Your task to perform on an android device: turn off location Image 0: 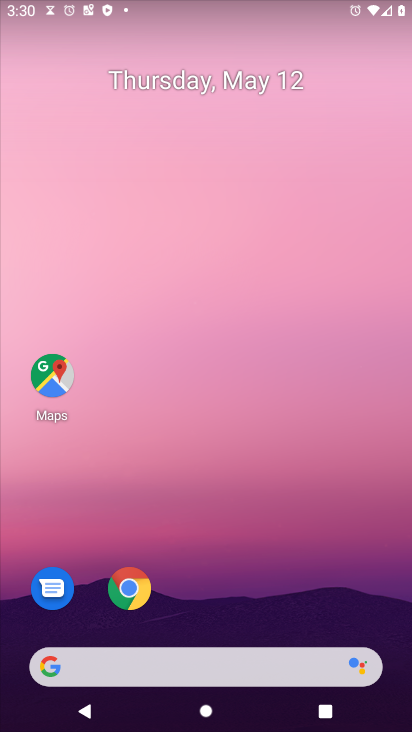
Step 0: drag from (205, 546) to (165, 27)
Your task to perform on an android device: turn off location Image 1: 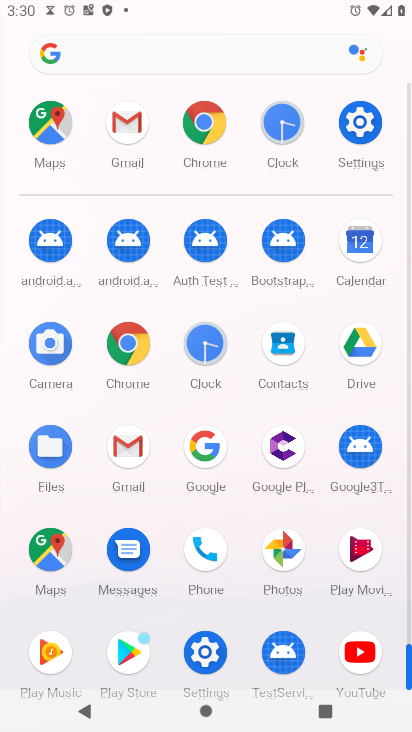
Step 1: drag from (15, 492) to (21, 269)
Your task to perform on an android device: turn off location Image 2: 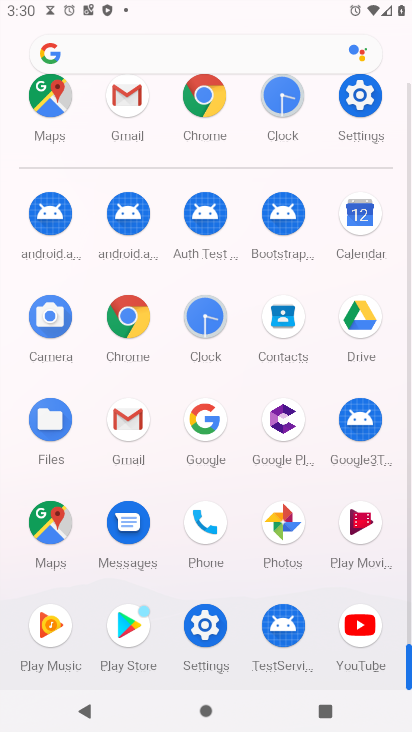
Step 2: click (206, 619)
Your task to perform on an android device: turn off location Image 3: 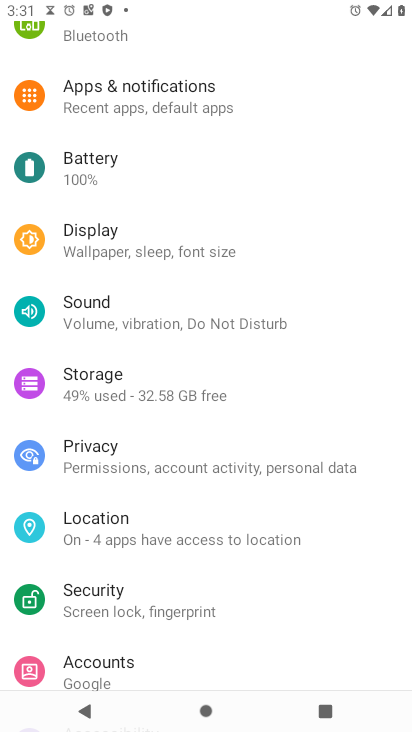
Step 3: drag from (274, 230) to (253, 528)
Your task to perform on an android device: turn off location Image 4: 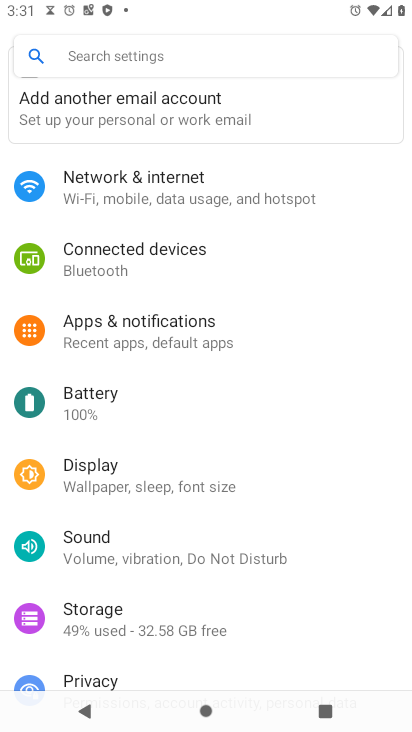
Step 4: drag from (229, 524) to (232, 299)
Your task to perform on an android device: turn off location Image 5: 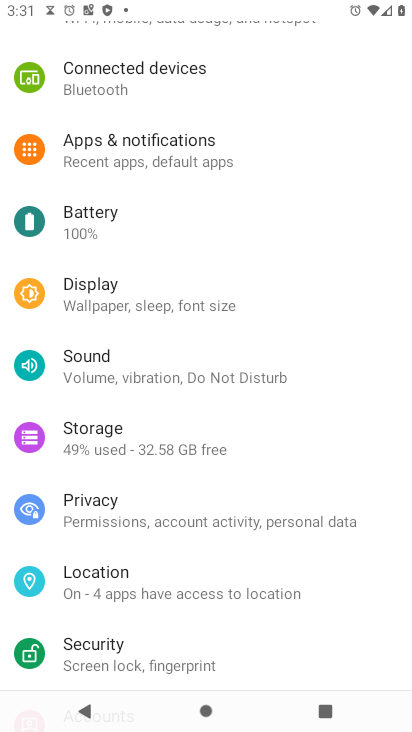
Step 5: click (130, 588)
Your task to perform on an android device: turn off location Image 6: 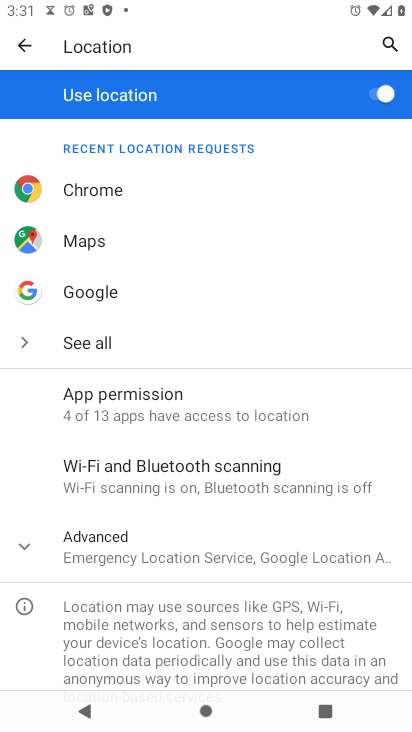
Step 6: click (368, 90)
Your task to perform on an android device: turn off location Image 7: 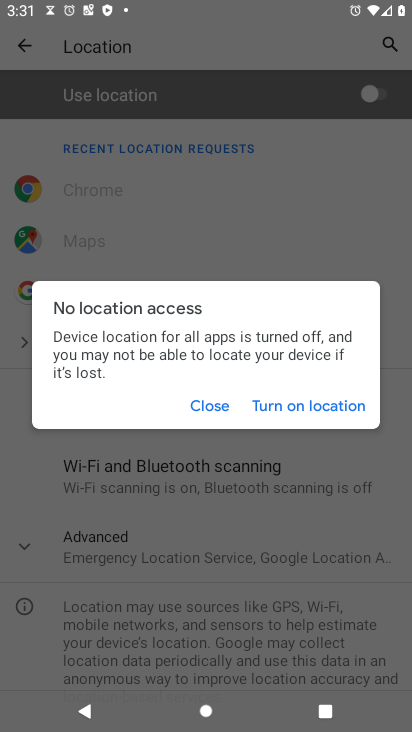
Step 7: click (218, 410)
Your task to perform on an android device: turn off location Image 8: 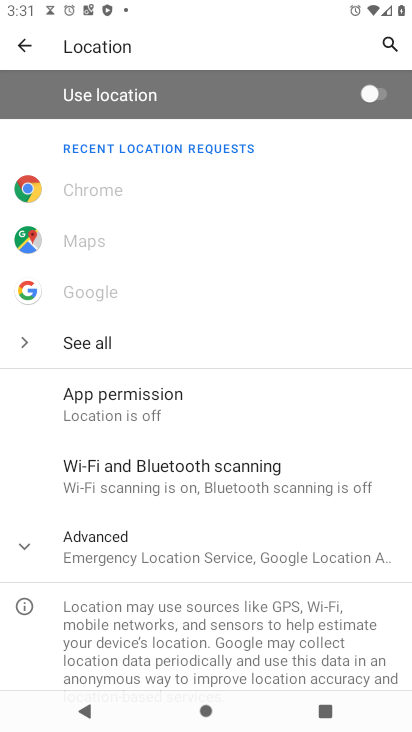
Step 8: task complete